Your task to perform on an android device: turn on wifi Image 0: 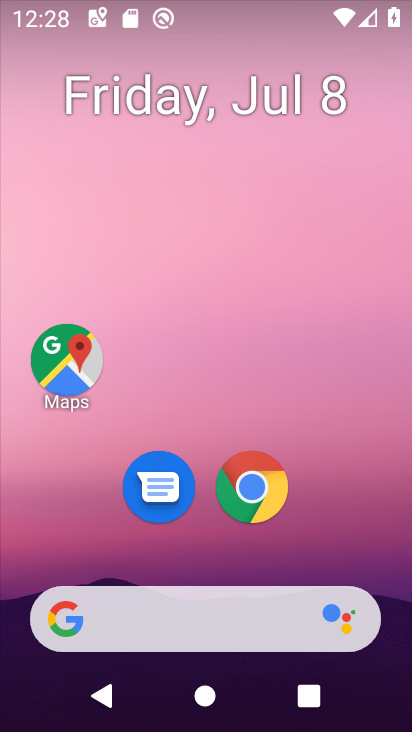
Step 0: drag from (357, 542) to (354, 137)
Your task to perform on an android device: turn on wifi Image 1: 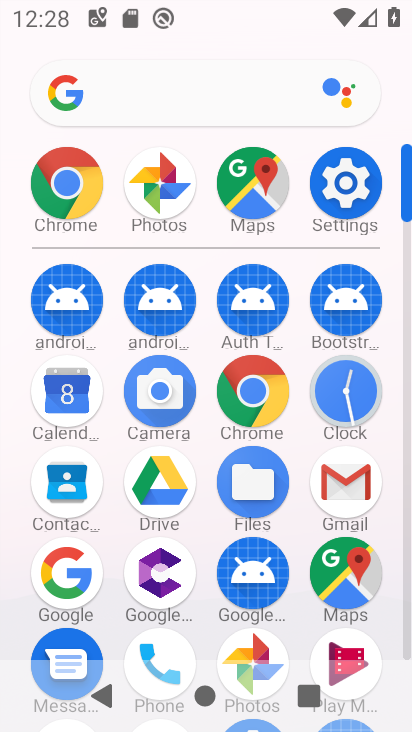
Step 1: click (349, 178)
Your task to perform on an android device: turn on wifi Image 2: 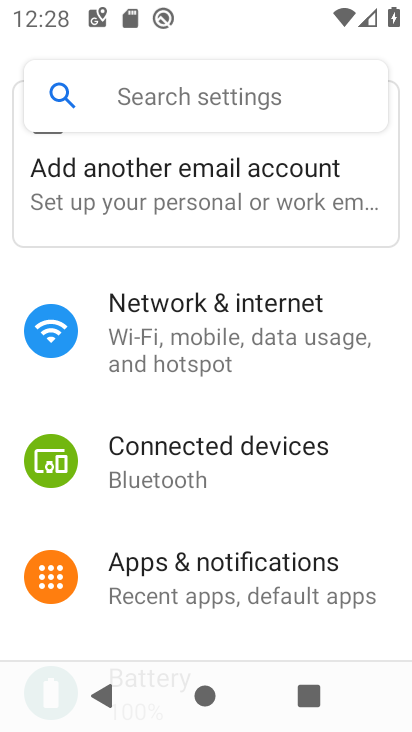
Step 2: drag from (360, 449) to (369, 365)
Your task to perform on an android device: turn on wifi Image 3: 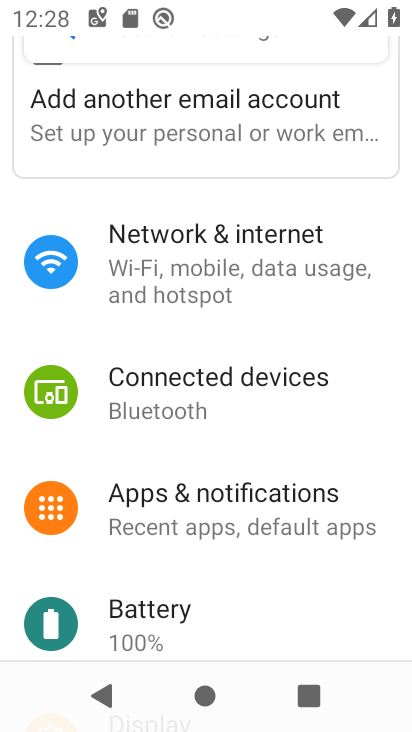
Step 3: drag from (376, 449) to (368, 367)
Your task to perform on an android device: turn on wifi Image 4: 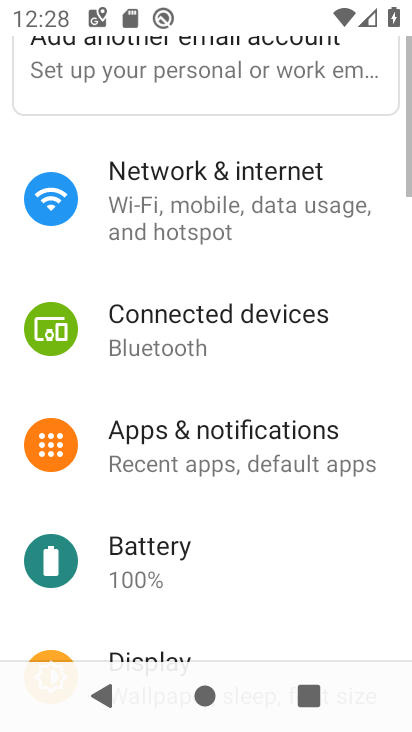
Step 4: drag from (372, 475) to (367, 379)
Your task to perform on an android device: turn on wifi Image 5: 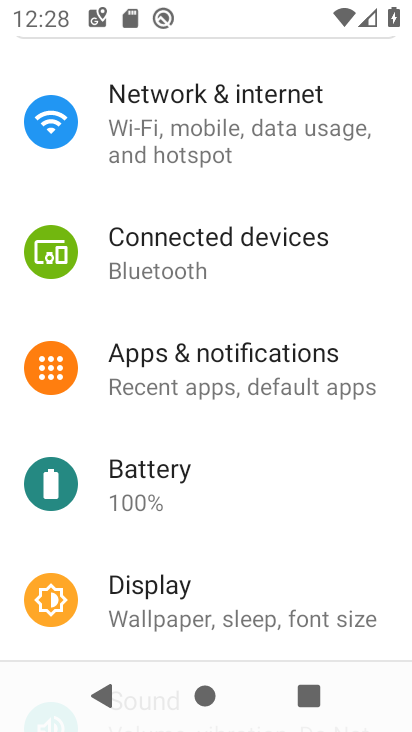
Step 5: click (269, 115)
Your task to perform on an android device: turn on wifi Image 6: 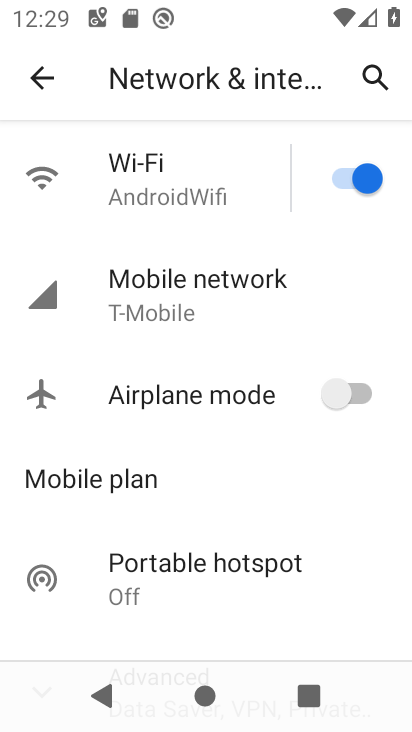
Step 6: task complete